Your task to perform on an android device: Show me popular games on the Play Store Image 0: 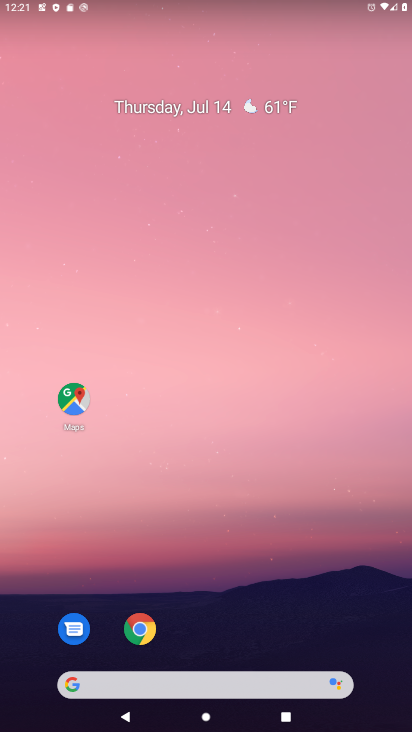
Step 0: drag from (236, 569) to (174, 72)
Your task to perform on an android device: Show me popular games on the Play Store Image 1: 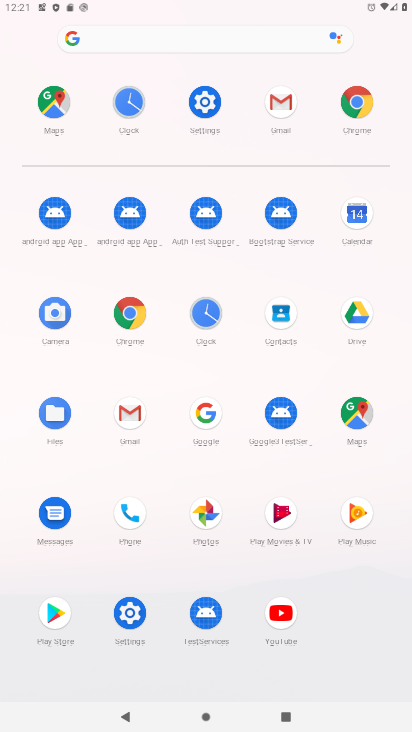
Step 1: click (54, 609)
Your task to perform on an android device: Show me popular games on the Play Store Image 2: 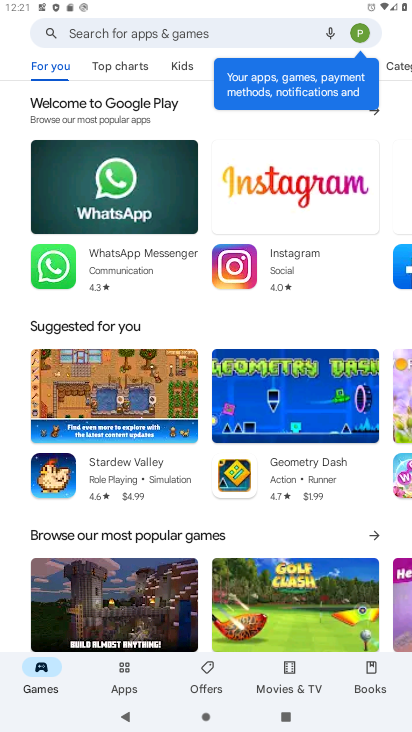
Step 2: task complete